Your task to perform on an android device: Open CNN.com Image 0: 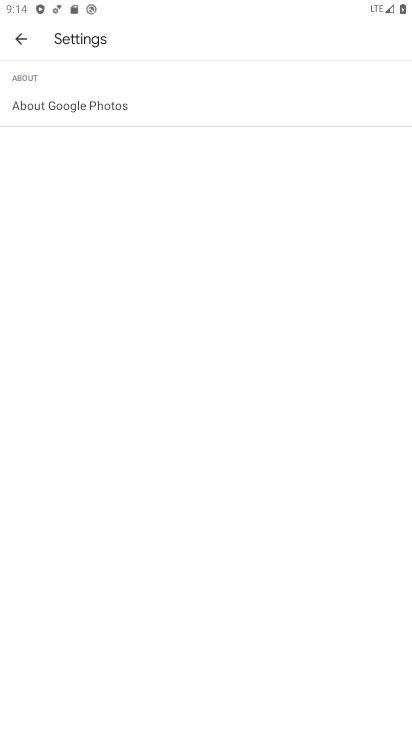
Step 0: press home button
Your task to perform on an android device: Open CNN.com Image 1: 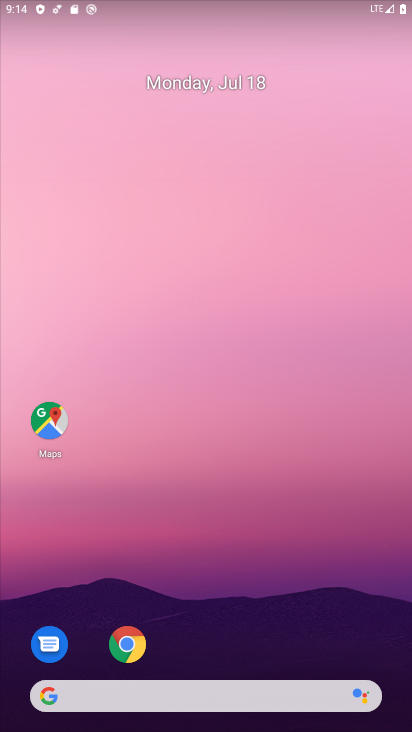
Step 1: drag from (339, 623) to (336, 212)
Your task to perform on an android device: Open CNN.com Image 2: 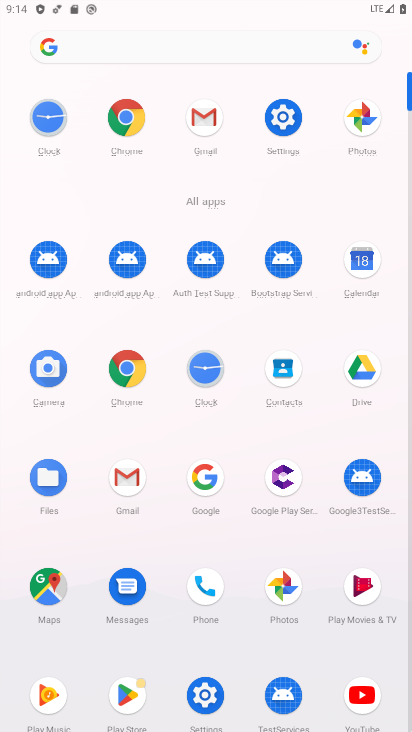
Step 2: click (130, 371)
Your task to perform on an android device: Open CNN.com Image 3: 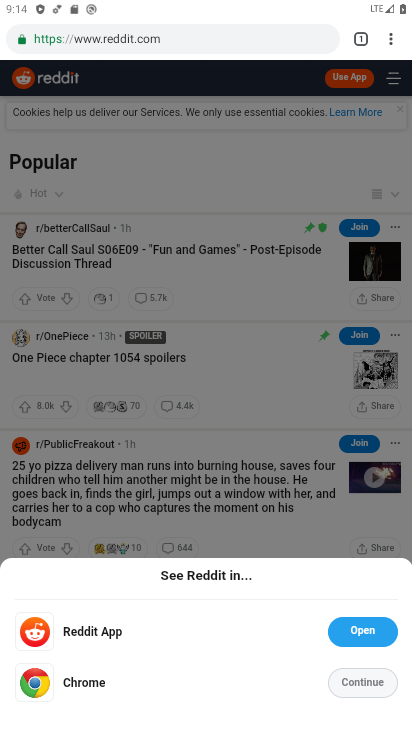
Step 3: click (211, 32)
Your task to perform on an android device: Open CNN.com Image 4: 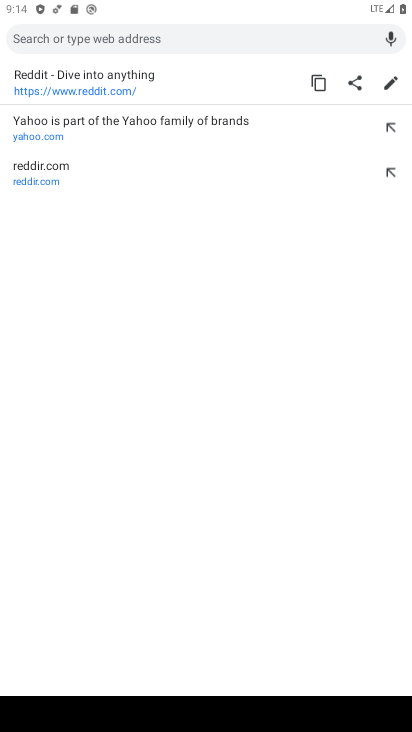
Step 4: type "cnn.com"
Your task to perform on an android device: Open CNN.com Image 5: 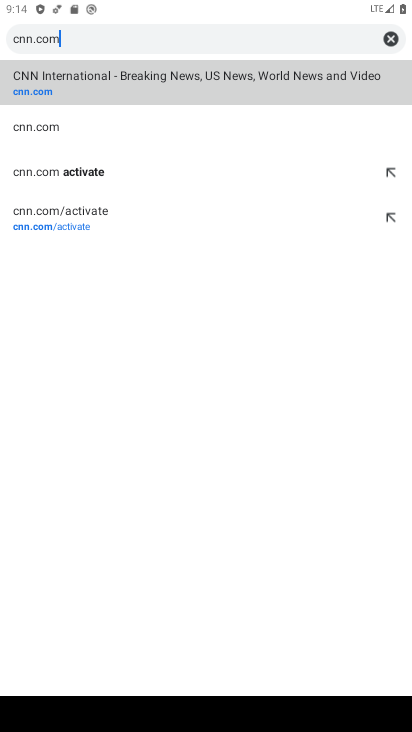
Step 5: click (158, 80)
Your task to perform on an android device: Open CNN.com Image 6: 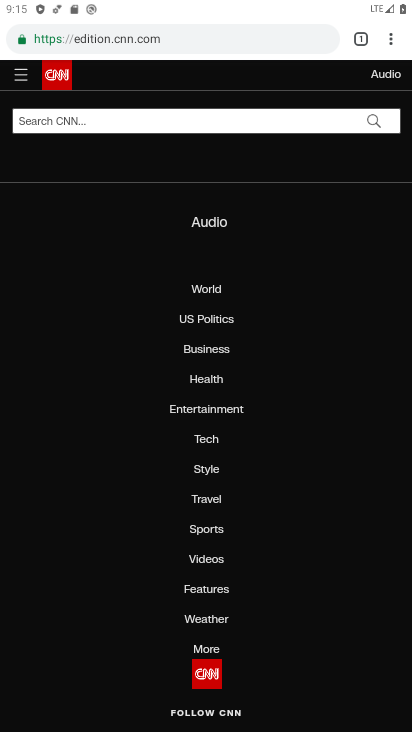
Step 6: task complete